Your task to perform on an android device: snooze an email in the gmail app Image 0: 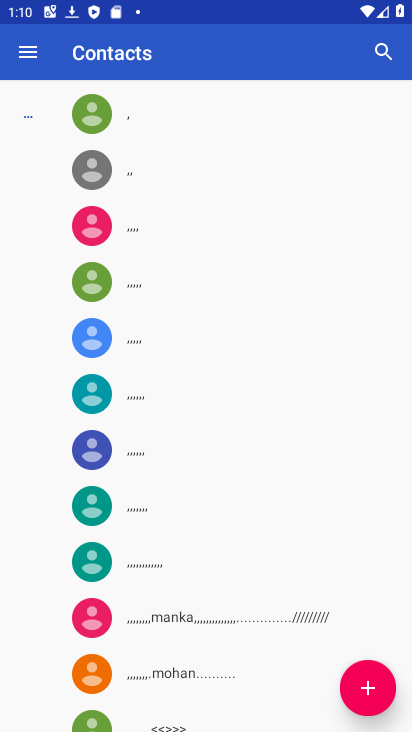
Step 0: press home button
Your task to perform on an android device: snooze an email in the gmail app Image 1: 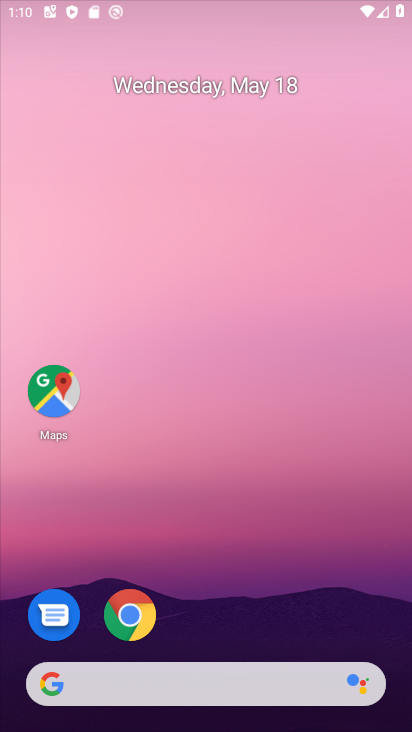
Step 1: drag from (275, 601) to (233, 55)
Your task to perform on an android device: snooze an email in the gmail app Image 2: 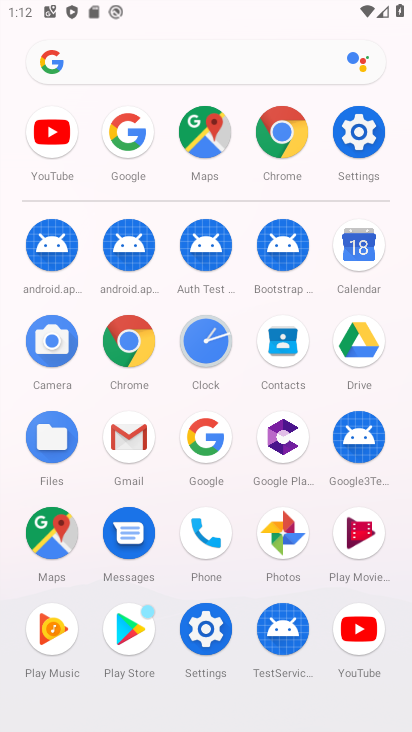
Step 2: click (141, 437)
Your task to perform on an android device: snooze an email in the gmail app Image 3: 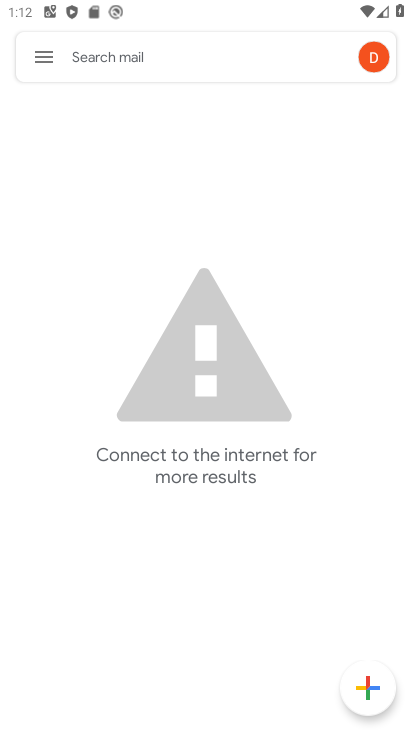
Step 3: click (37, 57)
Your task to perform on an android device: snooze an email in the gmail app Image 4: 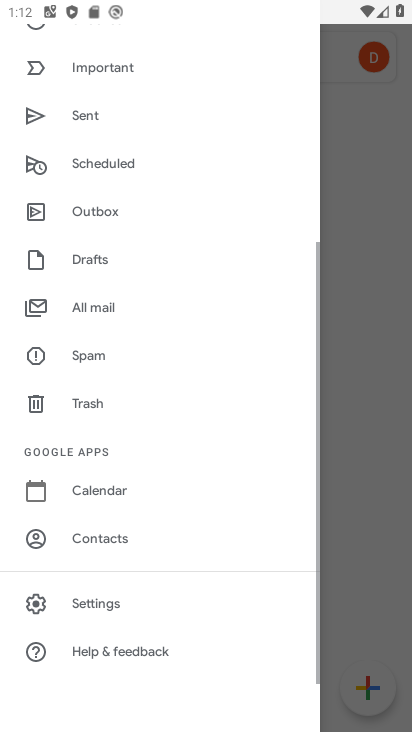
Step 4: drag from (103, 98) to (121, 730)
Your task to perform on an android device: snooze an email in the gmail app Image 5: 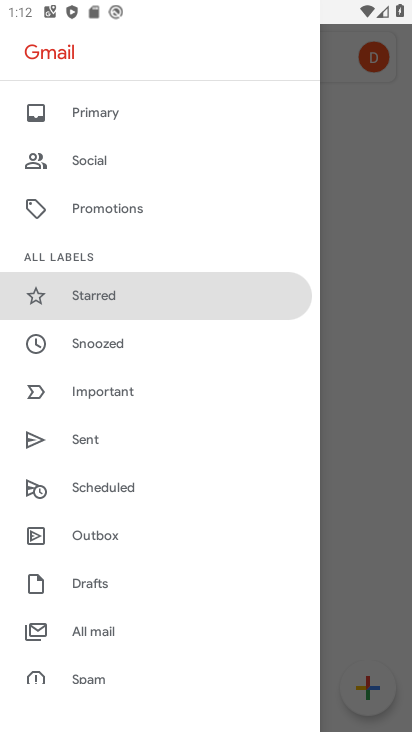
Step 5: click (120, 120)
Your task to perform on an android device: snooze an email in the gmail app Image 6: 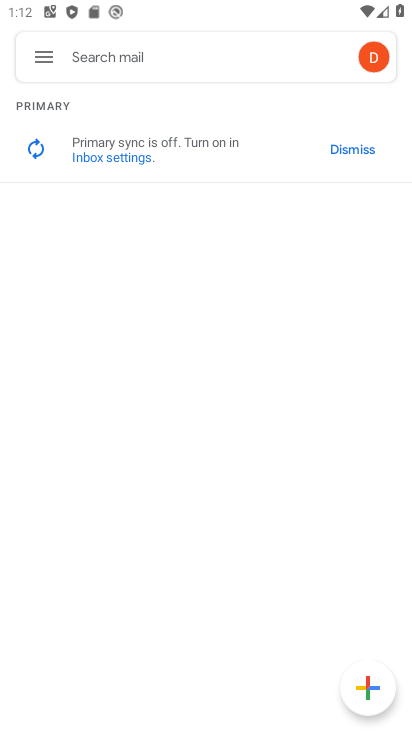
Step 6: task complete